Your task to perform on an android device: Open Google Chrome and click the shortcut for Amazon.com Image 0: 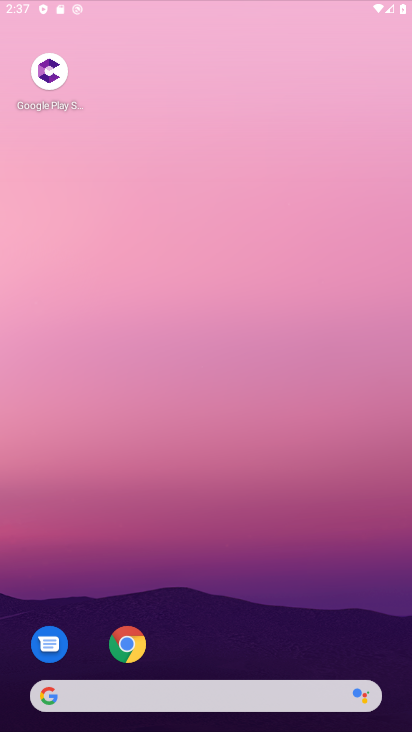
Step 0: drag from (266, 254) to (274, 104)
Your task to perform on an android device: Open Google Chrome and click the shortcut for Amazon.com Image 1: 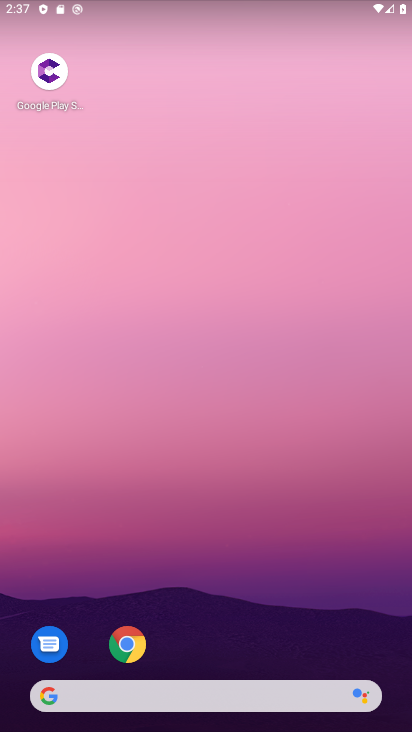
Step 1: click (227, 230)
Your task to perform on an android device: Open Google Chrome and click the shortcut for Amazon.com Image 2: 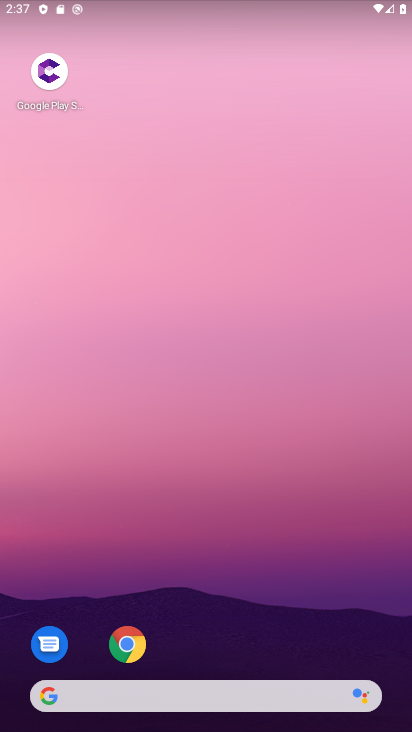
Step 2: drag from (175, 589) to (251, 241)
Your task to perform on an android device: Open Google Chrome and click the shortcut for Amazon.com Image 3: 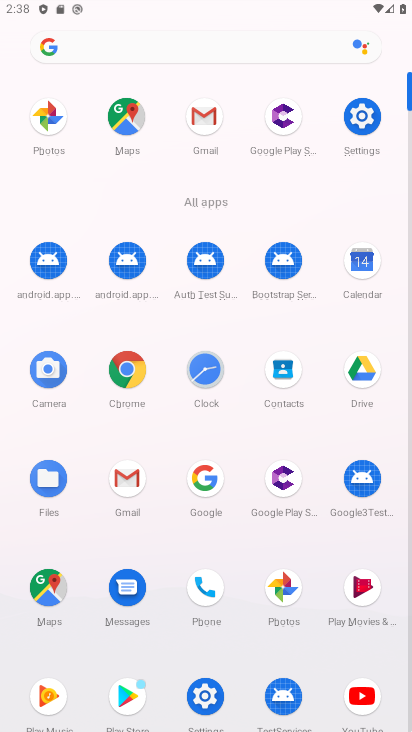
Step 3: click (131, 378)
Your task to perform on an android device: Open Google Chrome and click the shortcut for Amazon.com Image 4: 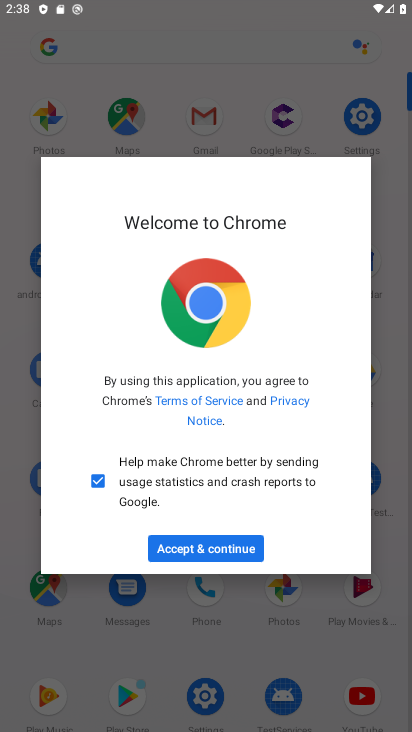
Step 4: click (195, 551)
Your task to perform on an android device: Open Google Chrome and click the shortcut for Amazon.com Image 5: 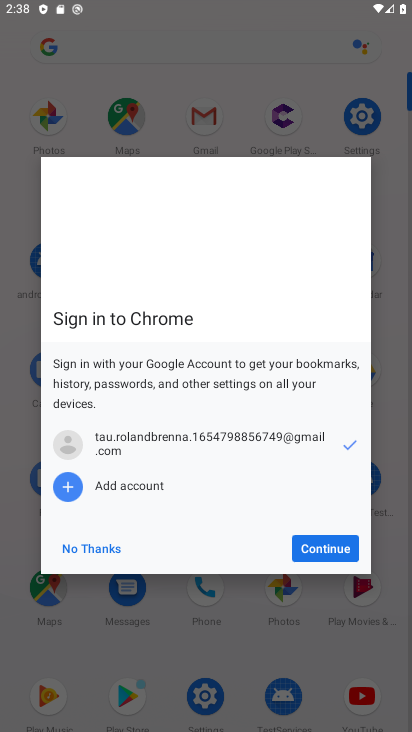
Step 5: click (311, 553)
Your task to perform on an android device: Open Google Chrome and click the shortcut for Amazon.com Image 6: 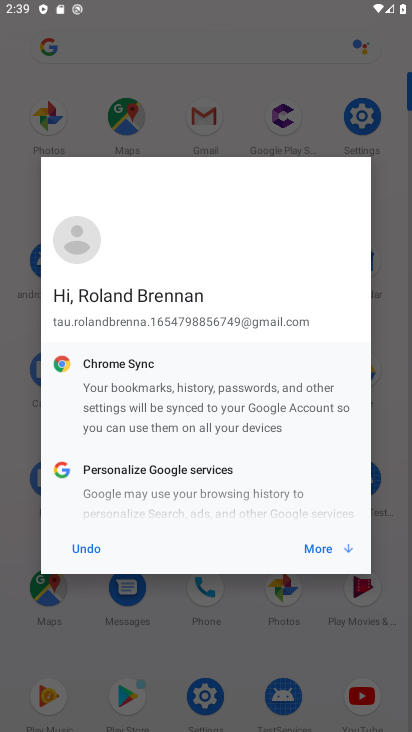
Step 6: click (328, 552)
Your task to perform on an android device: Open Google Chrome and click the shortcut for Amazon.com Image 7: 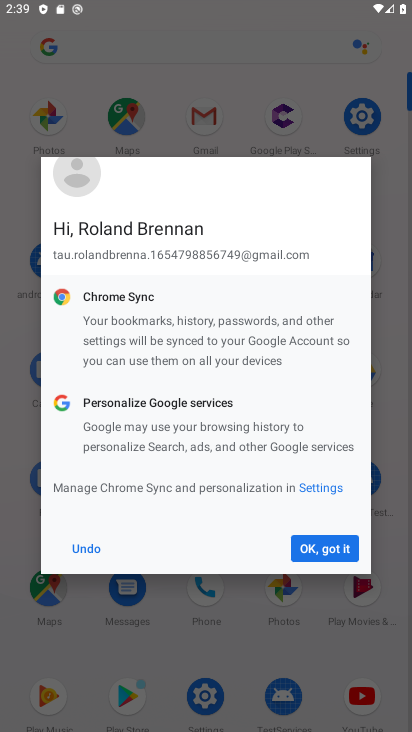
Step 7: click (318, 554)
Your task to perform on an android device: Open Google Chrome and click the shortcut for Amazon.com Image 8: 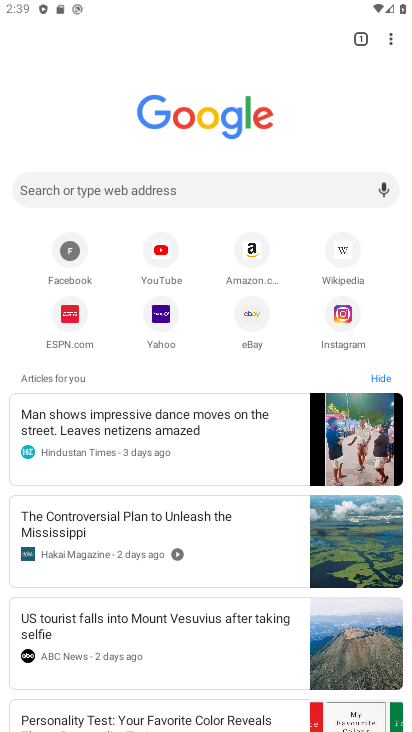
Step 8: click (394, 37)
Your task to perform on an android device: Open Google Chrome and click the shortcut for Amazon.com Image 9: 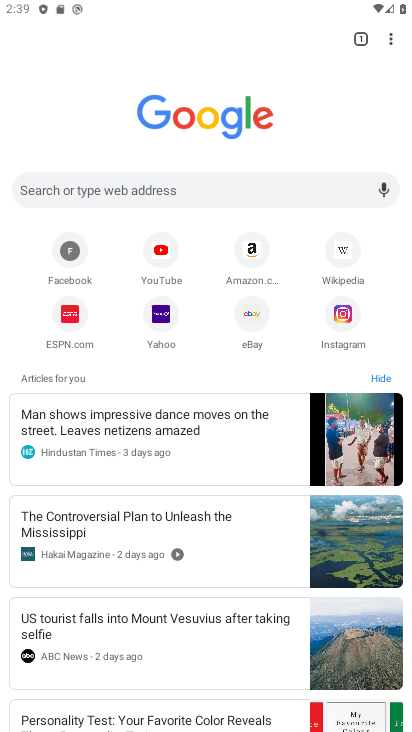
Step 9: click (255, 246)
Your task to perform on an android device: Open Google Chrome and click the shortcut for Amazon.com Image 10: 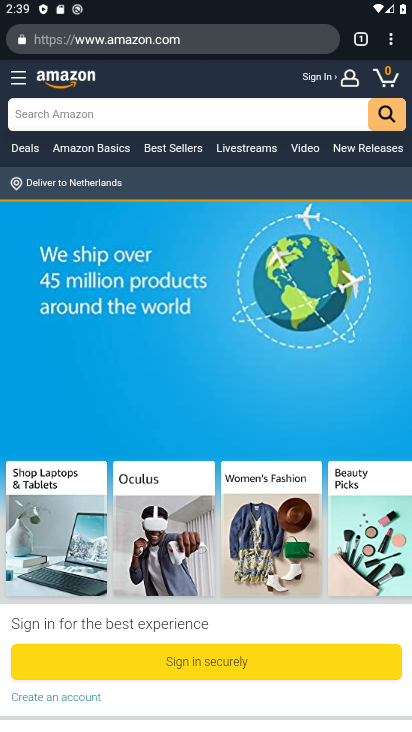
Step 10: task complete